Your task to perform on an android device: Do I have any events tomorrow? Image 0: 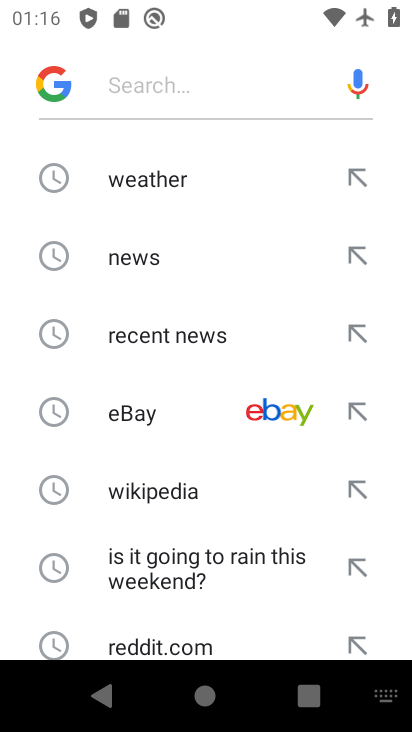
Step 0: press back button
Your task to perform on an android device: Do I have any events tomorrow? Image 1: 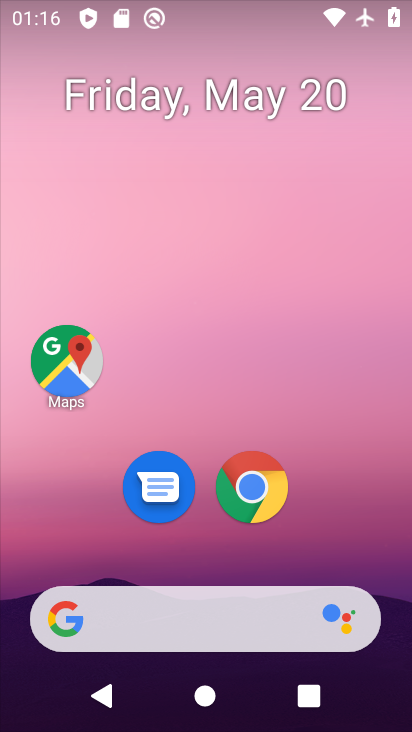
Step 1: drag from (307, 512) to (238, 26)
Your task to perform on an android device: Do I have any events tomorrow? Image 2: 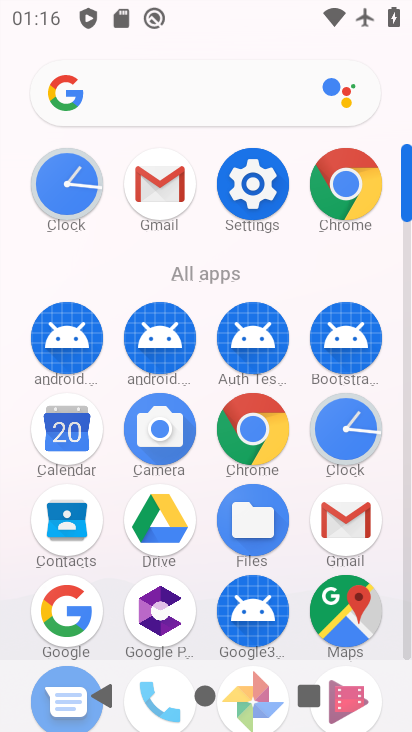
Step 2: drag from (11, 571) to (11, 213)
Your task to perform on an android device: Do I have any events tomorrow? Image 3: 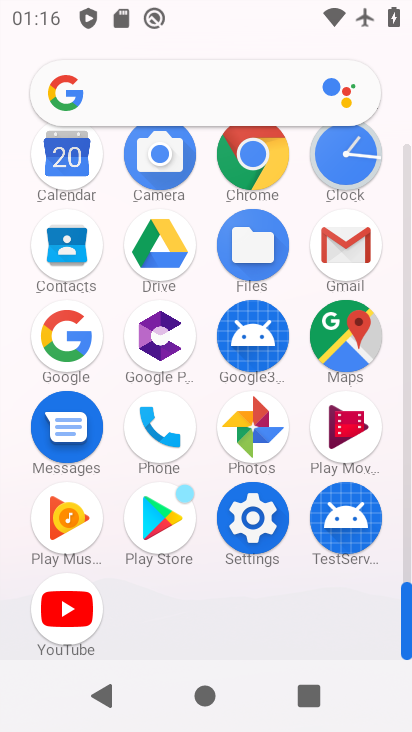
Step 3: click (62, 151)
Your task to perform on an android device: Do I have any events tomorrow? Image 4: 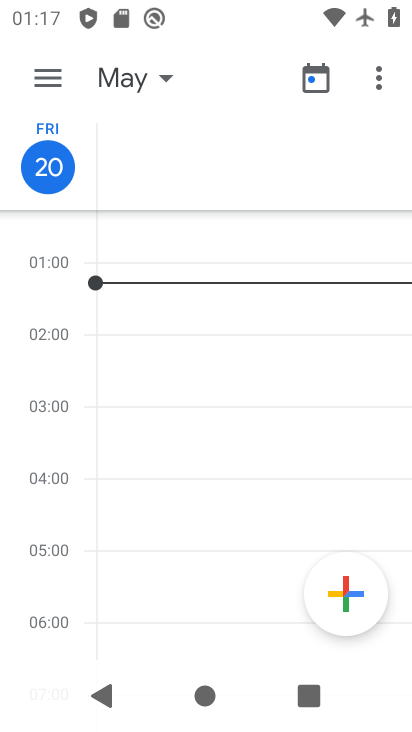
Step 4: task complete